Your task to perform on an android device: empty trash in the gmail app Image 0: 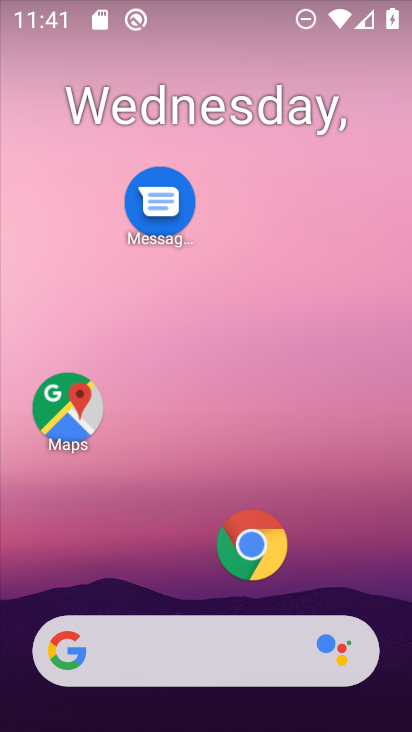
Step 0: drag from (175, 585) to (230, 324)
Your task to perform on an android device: empty trash in the gmail app Image 1: 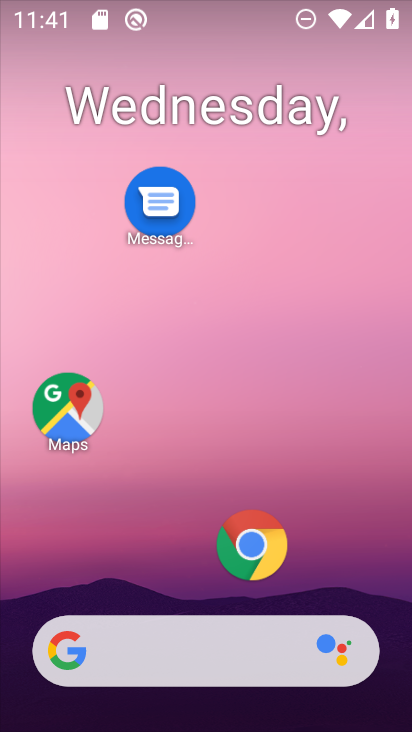
Step 1: drag from (195, 547) to (256, 189)
Your task to perform on an android device: empty trash in the gmail app Image 2: 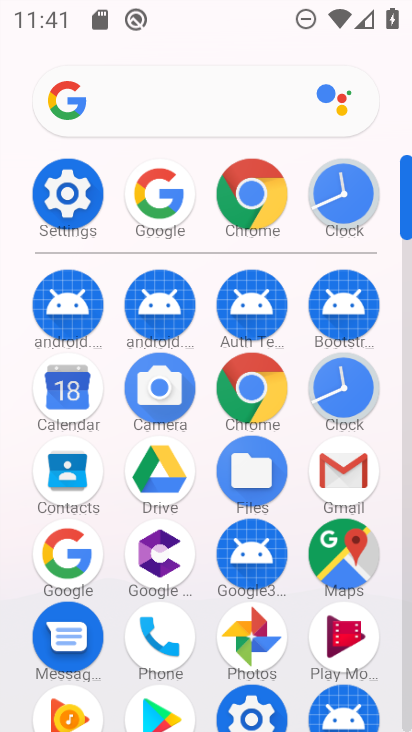
Step 2: click (311, 471)
Your task to perform on an android device: empty trash in the gmail app Image 3: 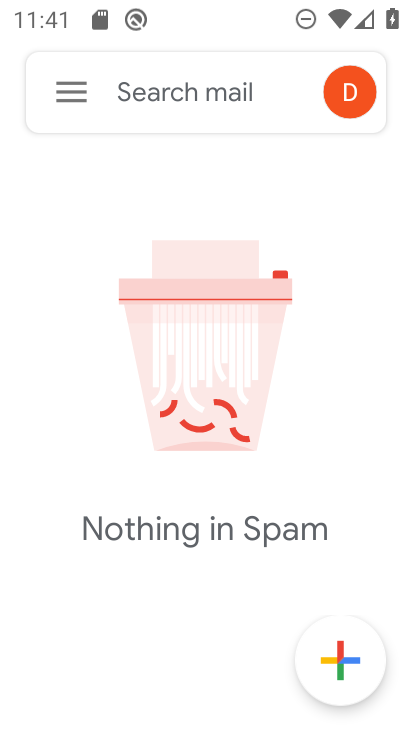
Step 3: click (76, 93)
Your task to perform on an android device: empty trash in the gmail app Image 4: 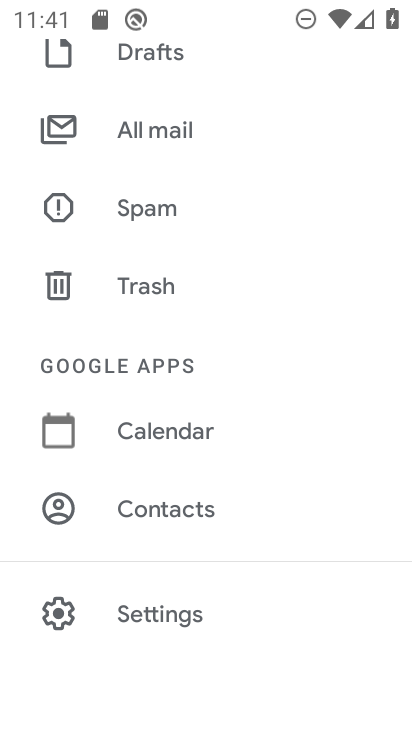
Step 4: click (117, 284)
Your task to perform on an android device: empty trash in the gmail app Image 5: 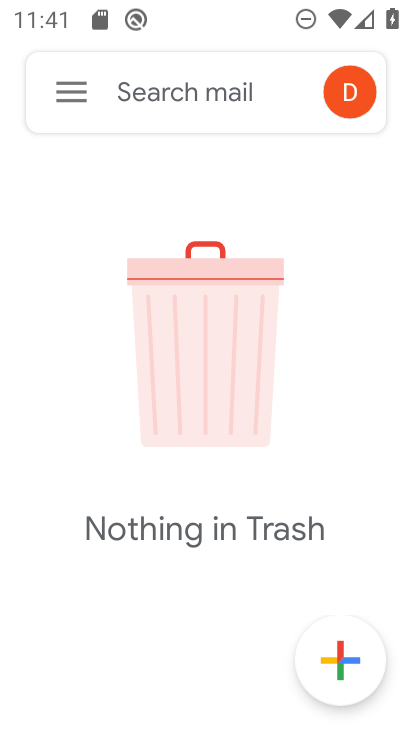
Step 5: task complete